Your task to perform on an android device: Open Maps and search for coffee Image 0: 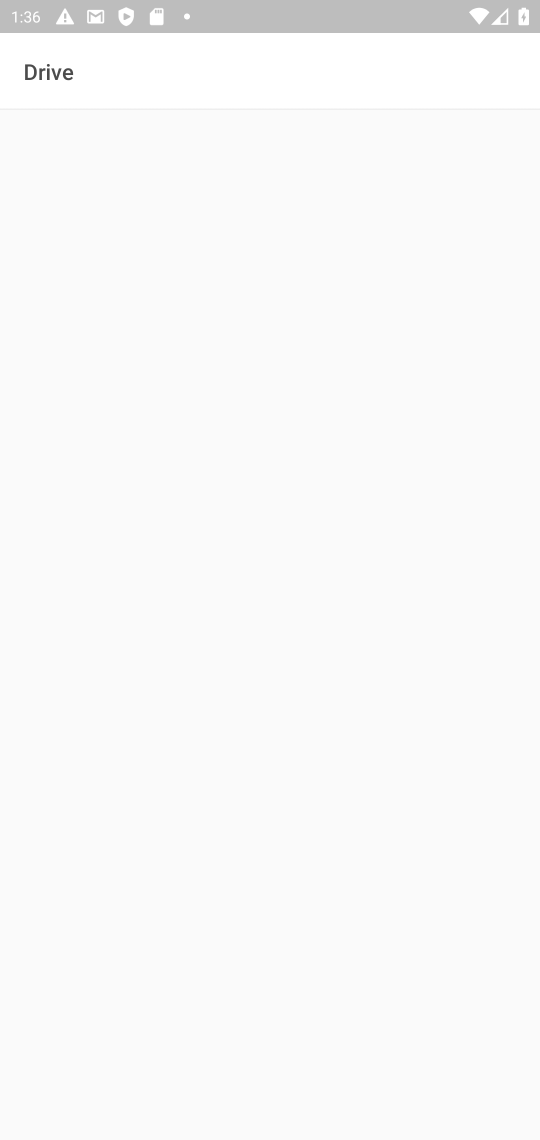
Step 0: press home button
Your task to perform on an android device: Open Maps and search for coffee Image 1: 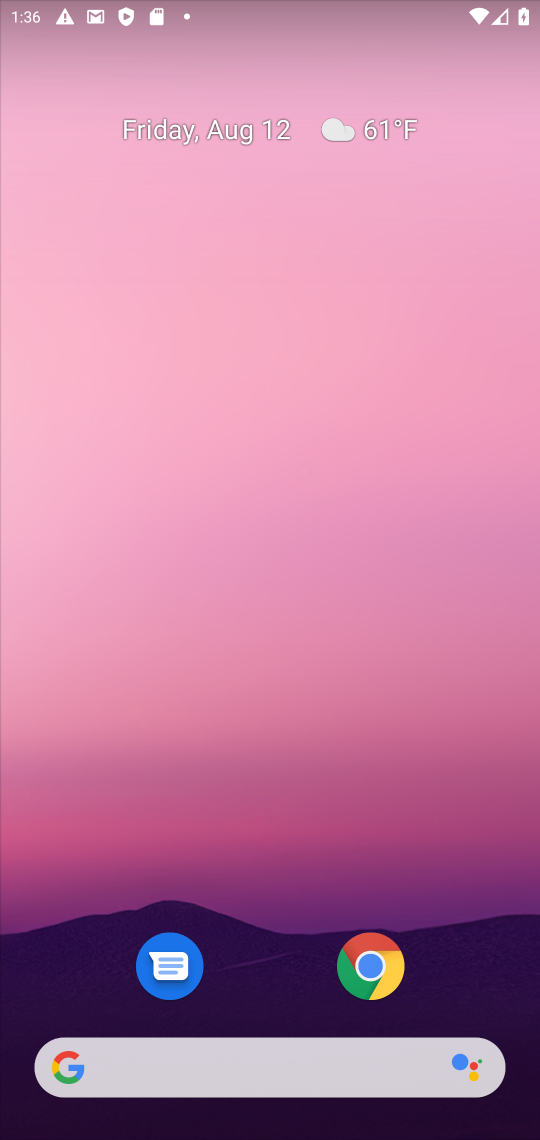
Step 1: drag from (490, 807) to (536, 96)
Your task to perform on an android device: Open Maps and search for coffee Image 2: 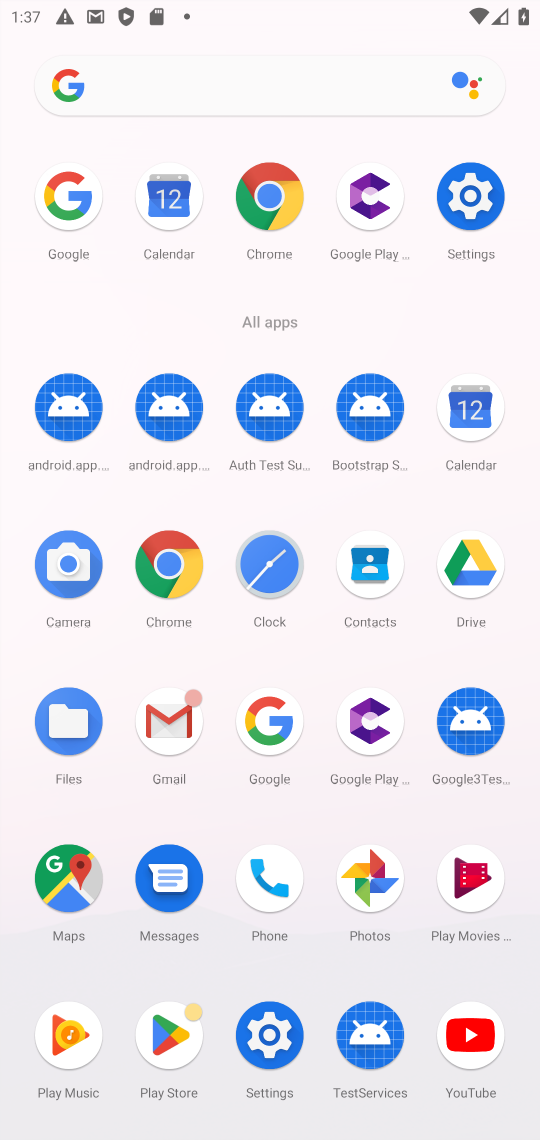
Step 2: click (66, 869)
Your task to perform on an android device: Open Maps and search for coffee Image 3: 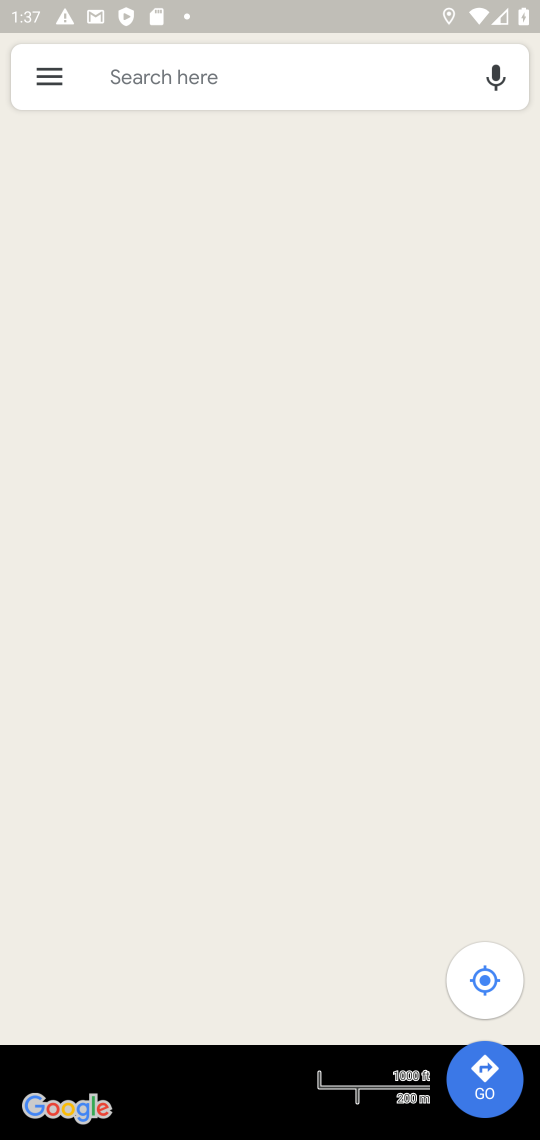
Step 3: click (324, 70)
Your task to perform on an android device: Open Maps and search for coffee Image 4: 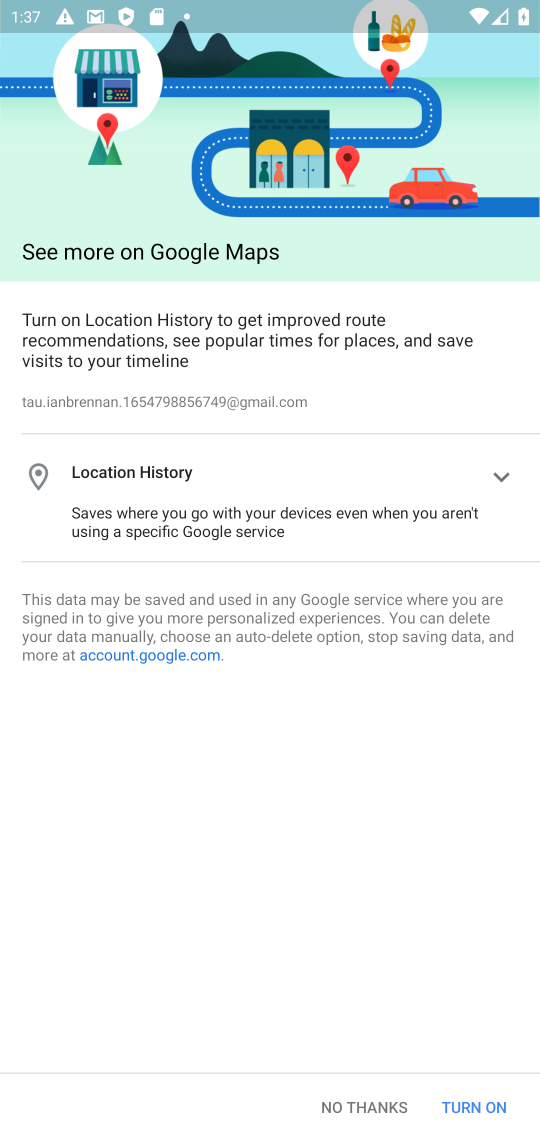
Step 4: type "coffee"
Your task to perform on an android device: Open Maps and search for coffee Image 5: 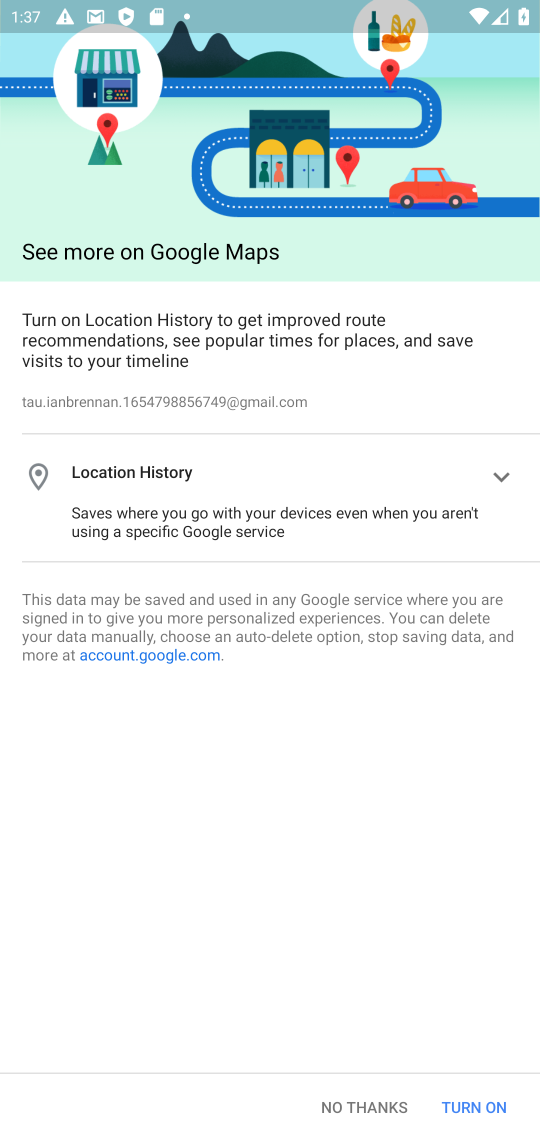
Step 5: click (489, 1105)
Your task to perform on an android device: Open Maps and search for coffee Image 6: 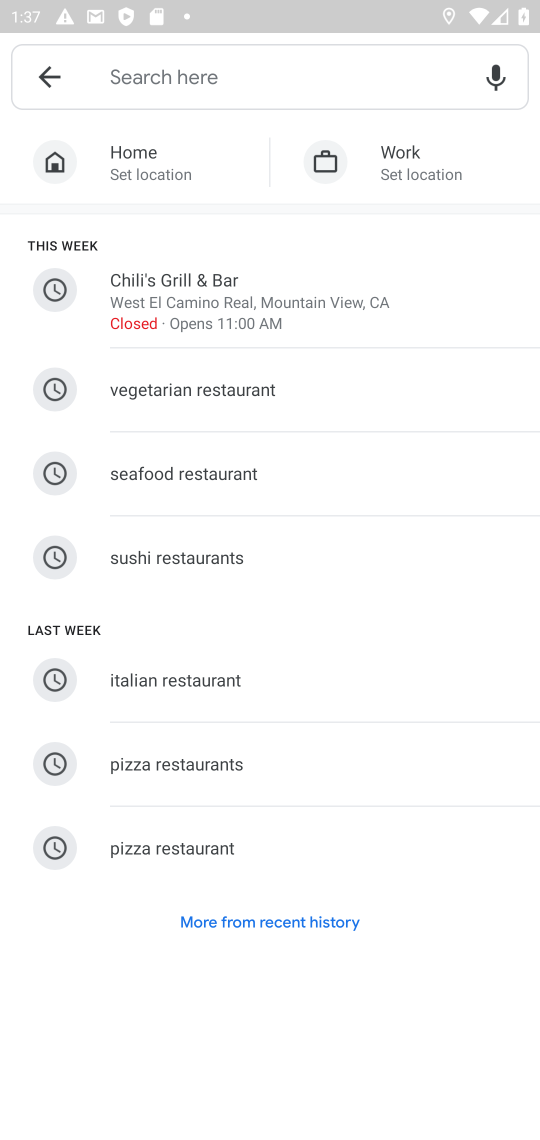
Step 6: click (222, 72)
Your task to perform on an android device: Open Maps and search for coffee Image 7: 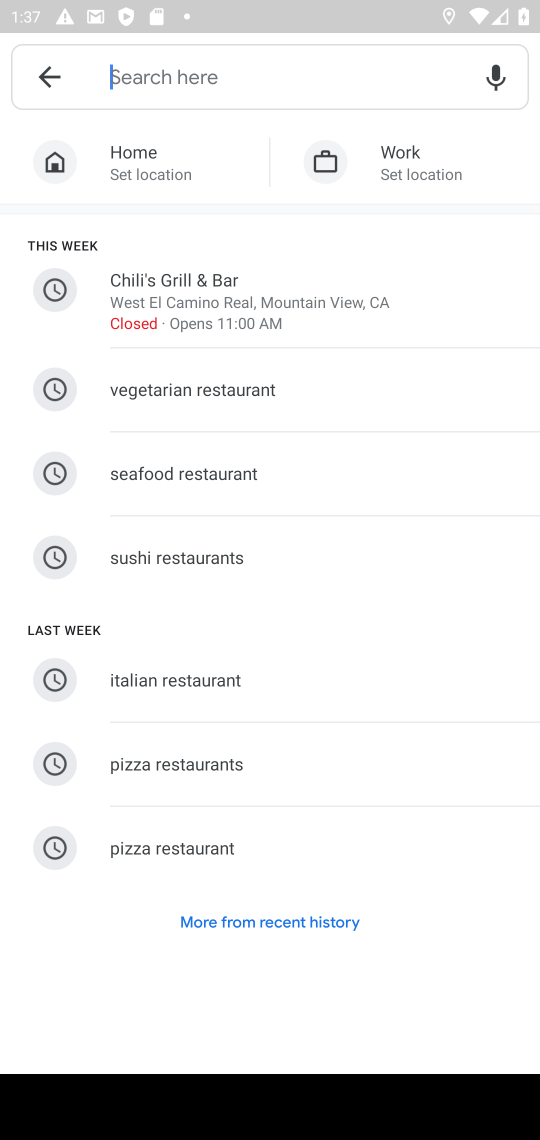
Step 7: type "coffee"
Your task to perform on an android device: Open Maps and search for coffee Image 8: 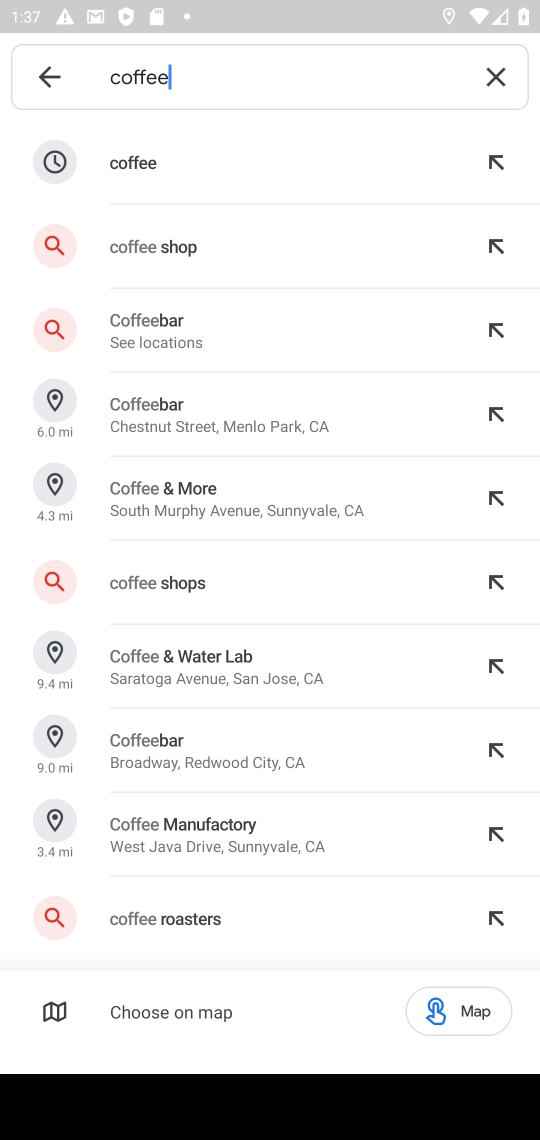
Step 8: click (161, 156)
Your task to perform on an android device: Open Maps and search for coffee Image 9: 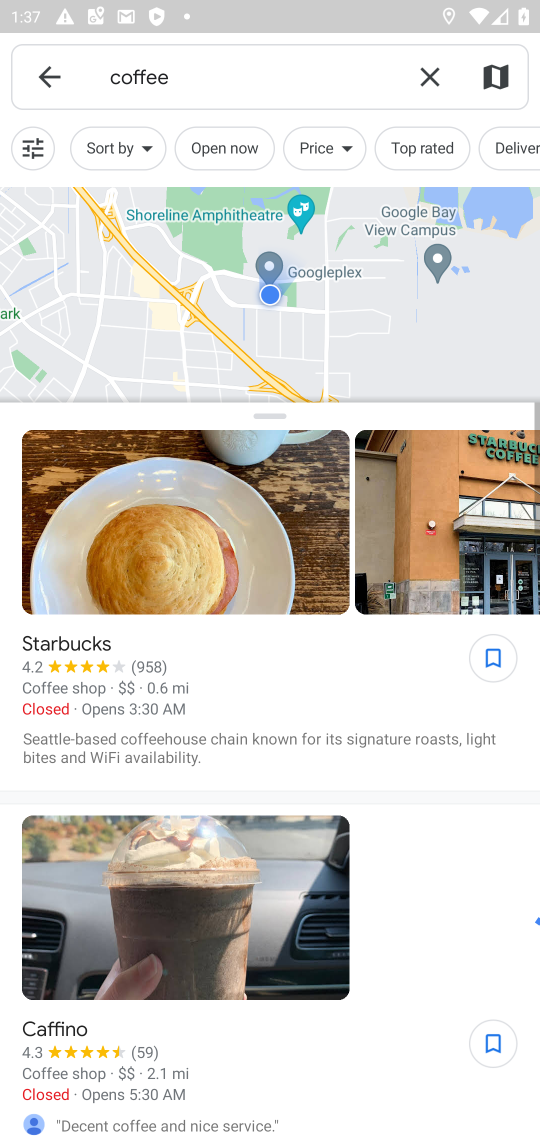
Step 9: task complete